Your task to perform on an android device: turn notification dots off Image 0: 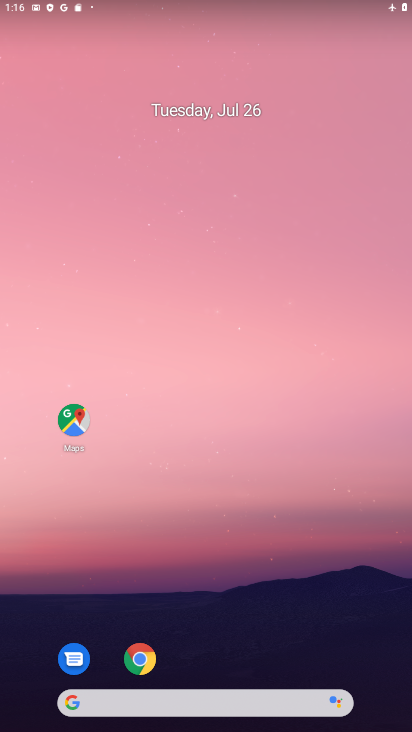
Step 0: press home button
Your task to perform on an android device: turn notification dots off Image 1: 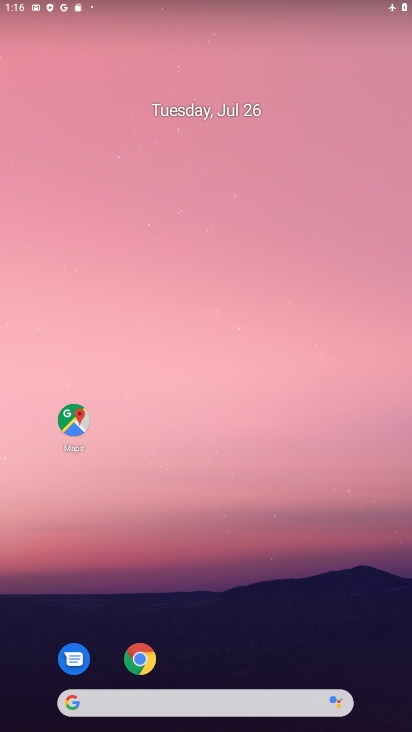
Step 1: drag from (257, 648) to (283, 77)
Your task to perform on an android device: turn notification dots off Image 2: 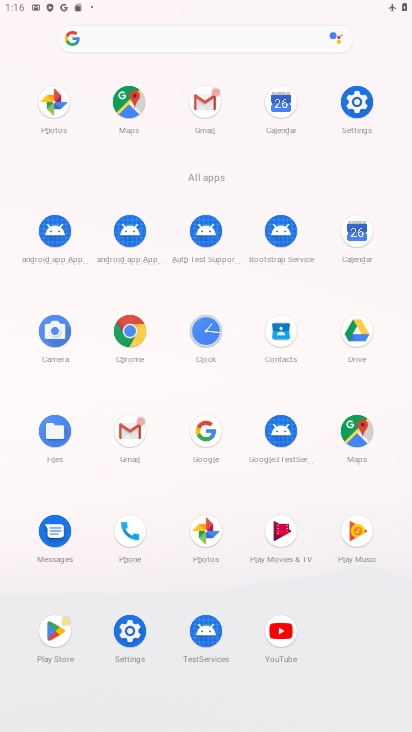
Step 2: click (354, 96)
Your task to perform on an android device: turn notification dots off Image 3: 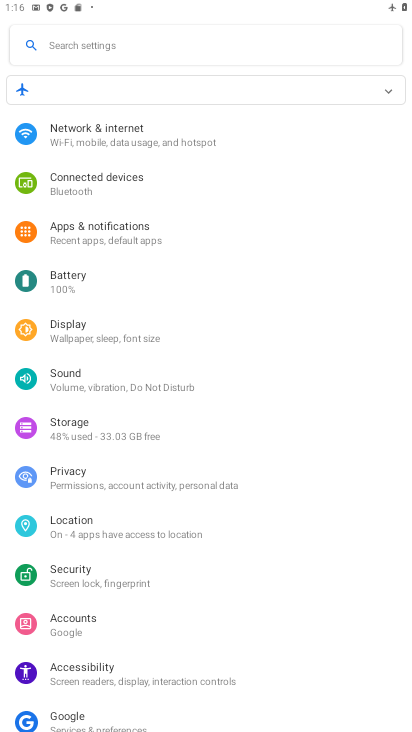
Step 3: click (97, 241)
Your task to perform on an android device: turn notification dots off Image 4: 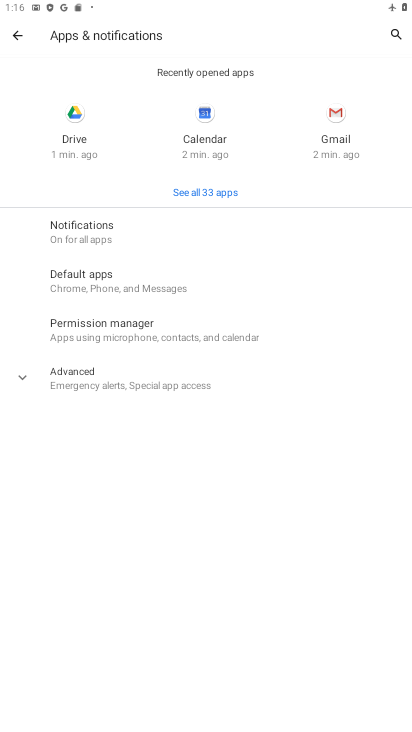
Step 4: click (79, 223)
Your task to perform on an android device: turn notification dots off Image 5: 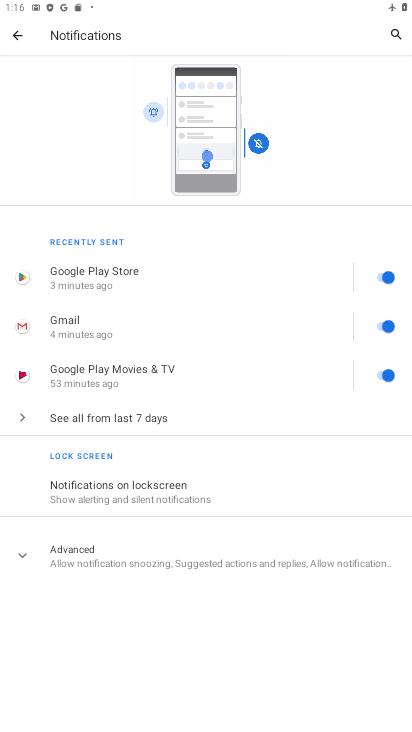
Step 5: click (82, 554)
Your task to perform on an android device: turn notification dots off Image 6: 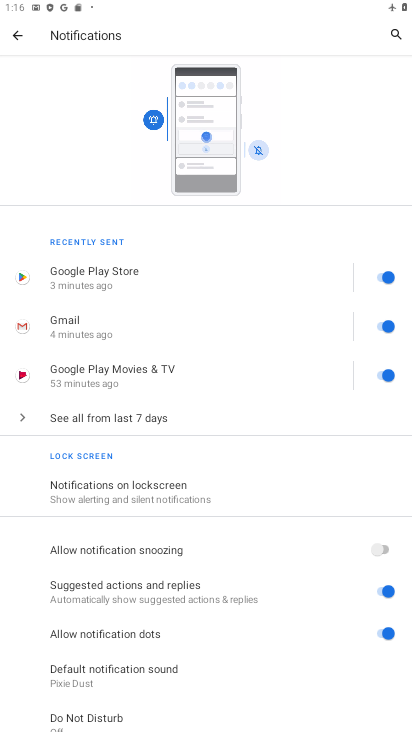
Step 6: click (389, 631)
Your task to perform on an android device: turn notification dots off Image 7: 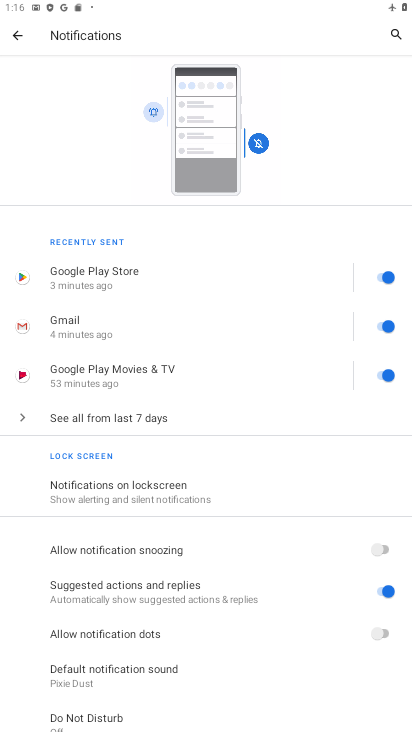
Step 7: task complete